Your task to perform on an android device: Open maps Image 0: 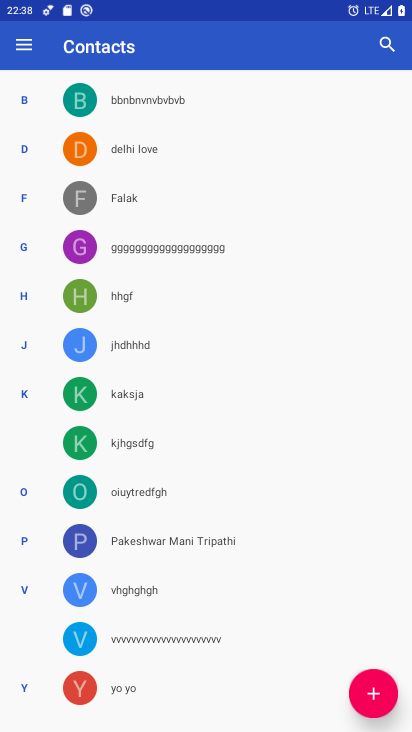
Step 0: press home button
Your task to perform on an android device: Open maps Image 1: 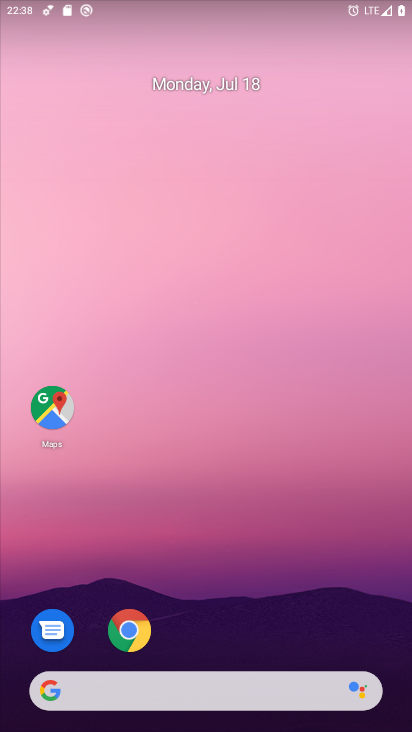
Step 1: click (68, 399)
Your task to perform on an android device: Open maps Image 2: 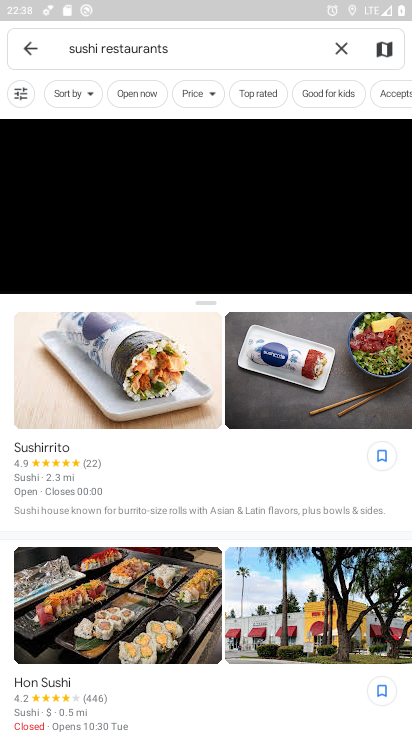
Step 2: click (342, 39)
Your task to perform on an android device: Open maps Image 3: 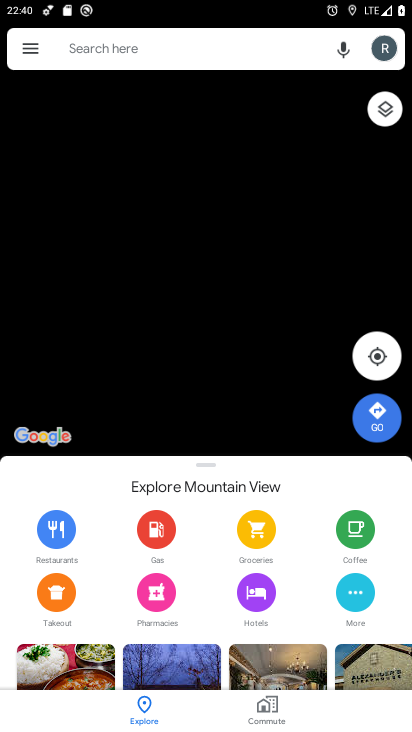
Step 3: task complete